Your task to perform on an android device: Open wifi settings Image 0: 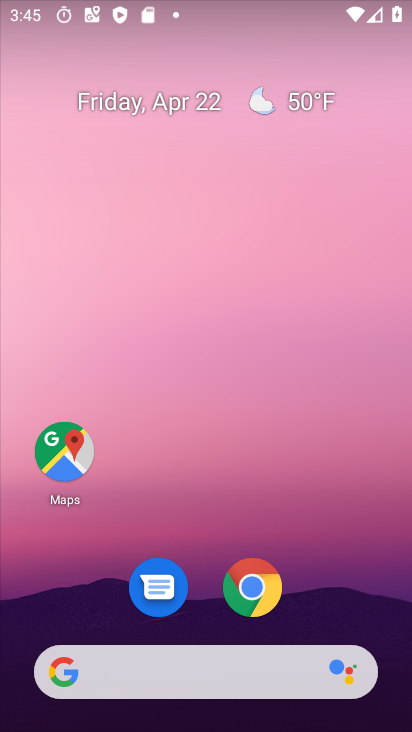
Step 0: drag from (345, 606) to (353, 18)
Your task to perform on an android device: Open wifi settings Image 1: 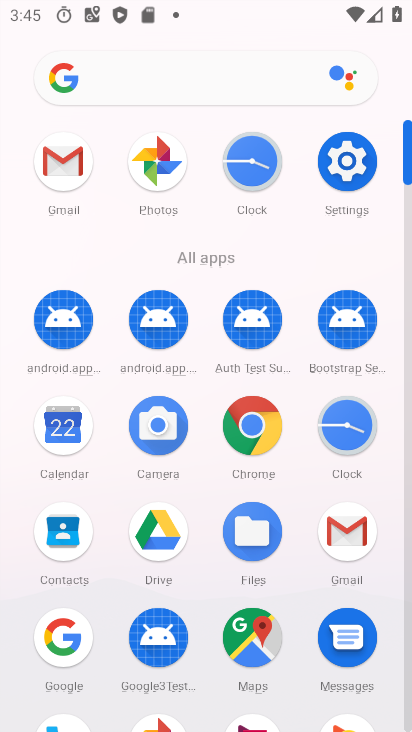
Step 1: click (349, 174)
Your task to perform on an android device: Open wifi settings Image 2: 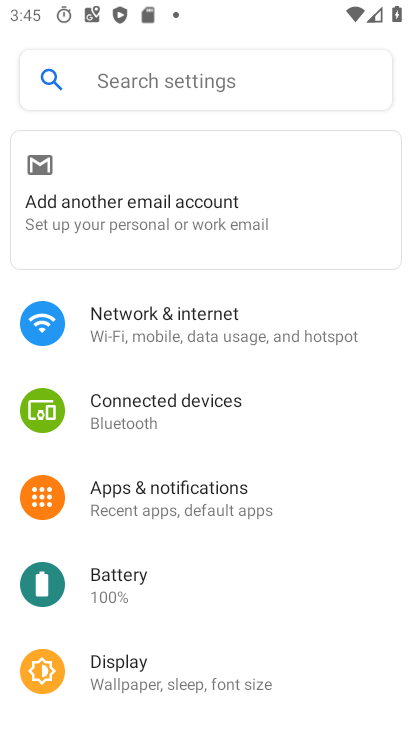
Step 2: click (131, 334)
Your task to perform on an android device: Open wifi settings Image 3: 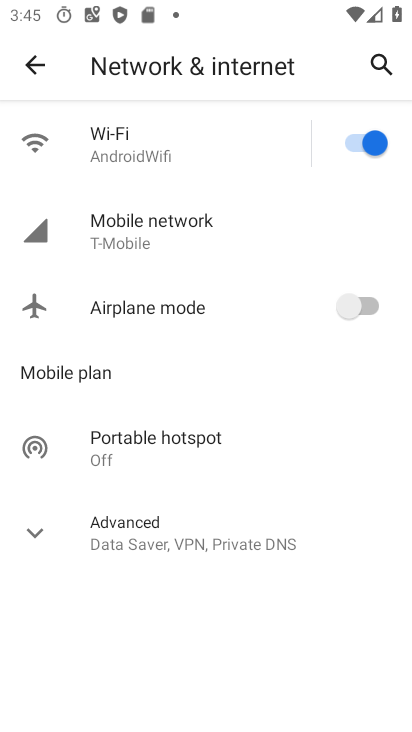
Step 3: click (99, 147)
Your task to perform on an android device: Open wifi settings Image 4: 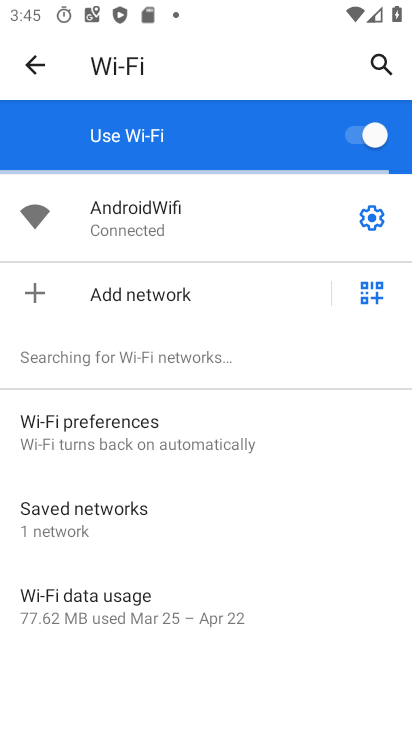
Step 4: task complete